Your task to perform on an android device: Do I have any events tomorrow? Image 0: 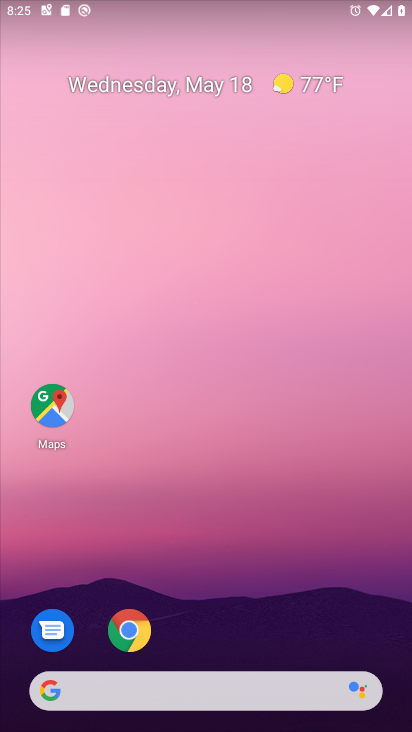
Step 0: drag from (270, 601) to (284, 175)
Your task to perform on an android device: Do I have any events tomorrow? Image 1: 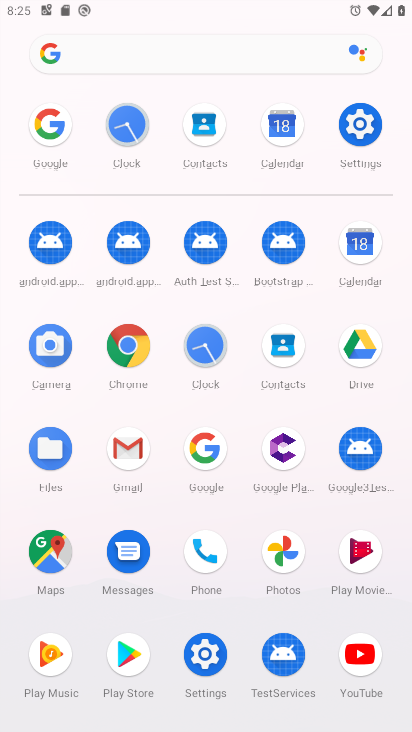
Step 1: click (367, 259)
Your task to perform on an android device: Do I have any events tomorrow? Image 2: 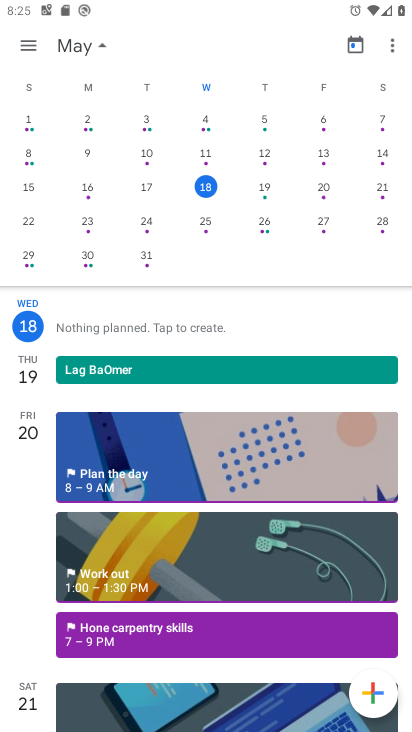
Step 2: click (264, 193)
Your task to perform on an android device: Do I have any events tomorrow? Image 3: 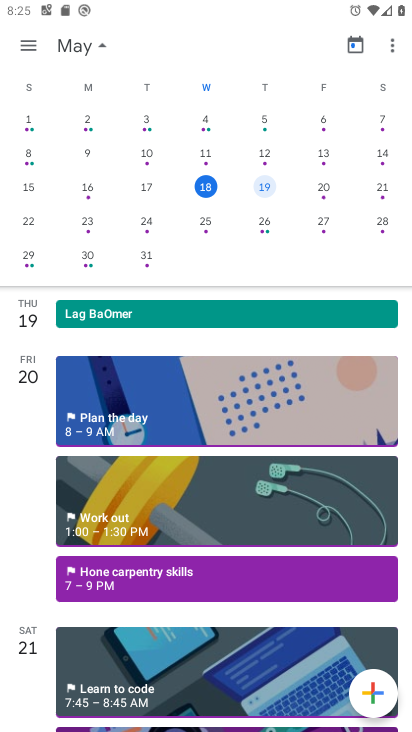
Step 3: task complete